Your task to perform on an android device: Open privacy settings Image 0: 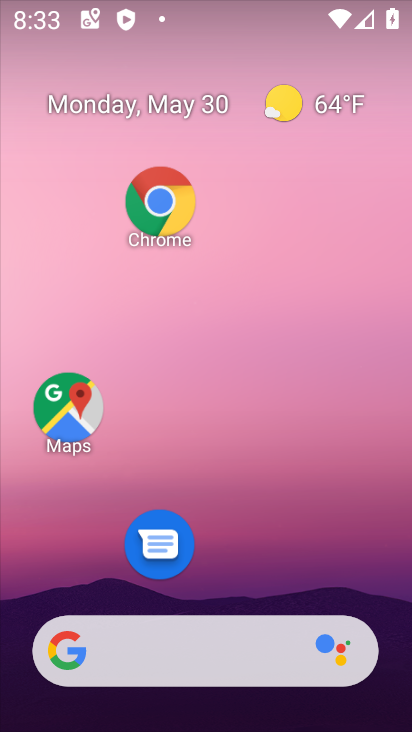
Step 0: drag from (232, 610) to (182, 25)
Your task to perform on an android device: Open privacy settings Image 1: 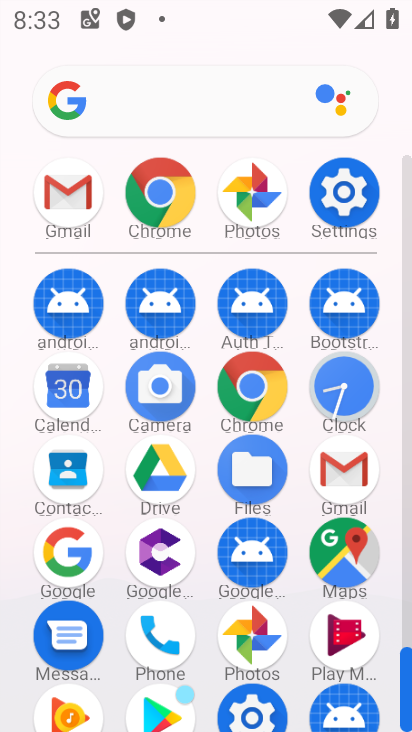
Step 1: click (343, 204)
Your task to perform on an android device: Open privacy settings Image 2: 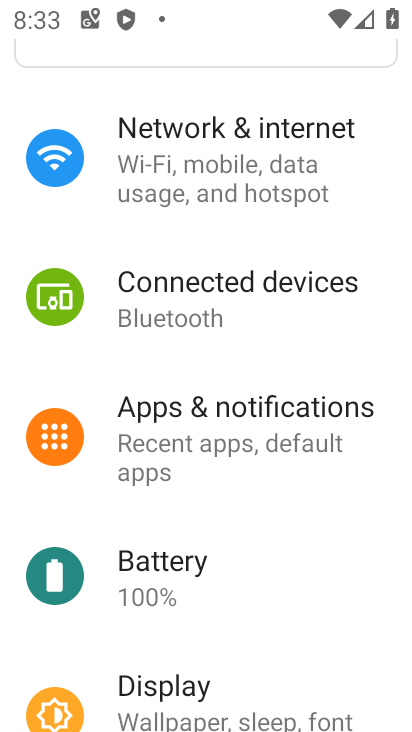
Step 2: drag from (249, 611) to (191, 211)
Your task to perform on an android device: Open privacy settings Image 3: 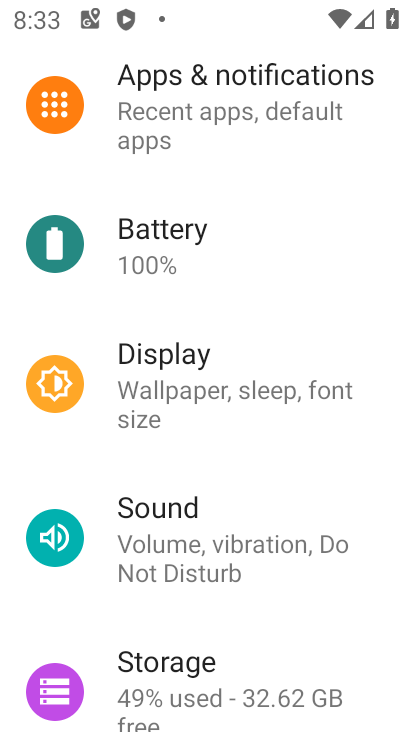
Step 3: drag from (247, 621) to (183, 175)
Your task to perform on an android device: Open privacy settings Image 4: 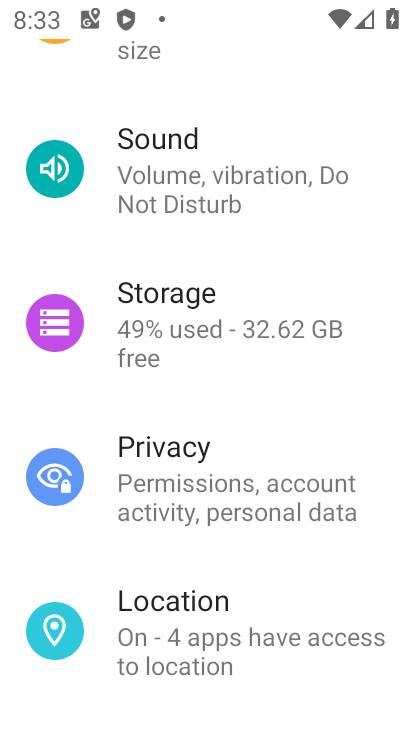
Step 4: click (174, 463)
Your task to perform on an android device: Open privacy settings Image 5: 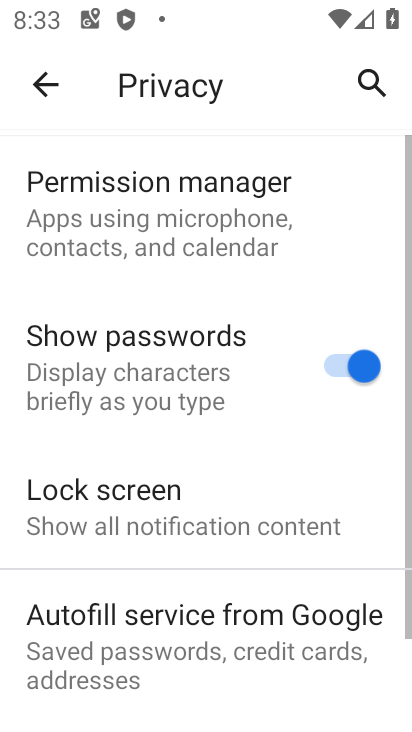
Step 5: task complete